Your task to perform on an android device: What's the weather going to be this weekend? Image 0: 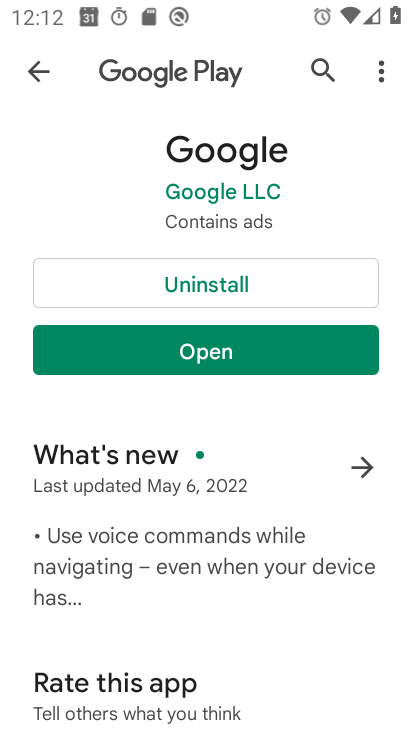
Step 0: press home button
Your task to perform on an android device: What's the weather going to be this weekend? Image 1: 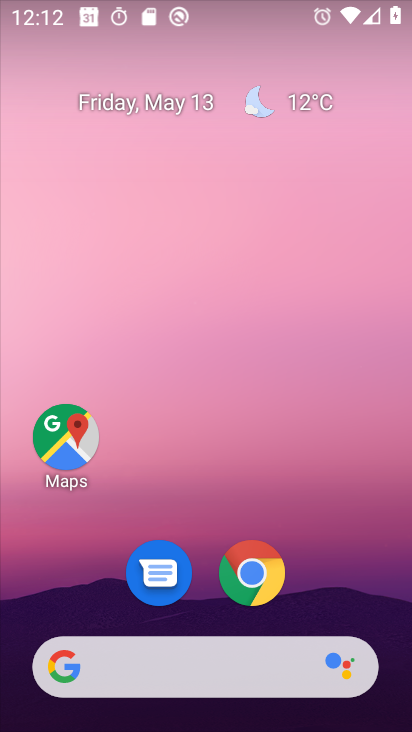
Step 1: drag from (392, 664) to (348, 211)
Your task to perform on an android device: What's the weather going to be this weekend? Image 2: 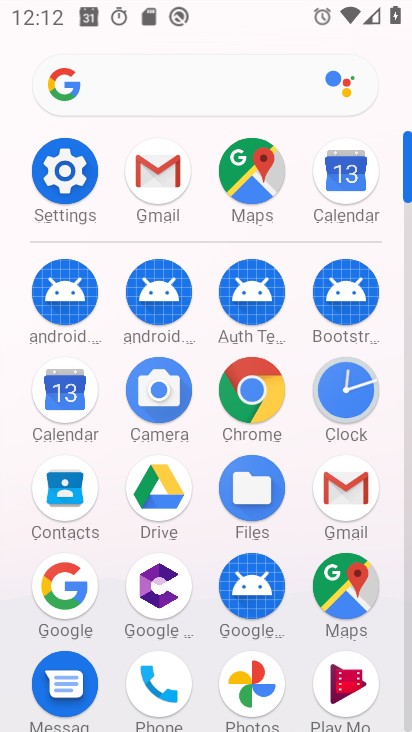
Step 2: press home button
Your task to perform on an android device: What's the weather going to be this weekend? Image 3: 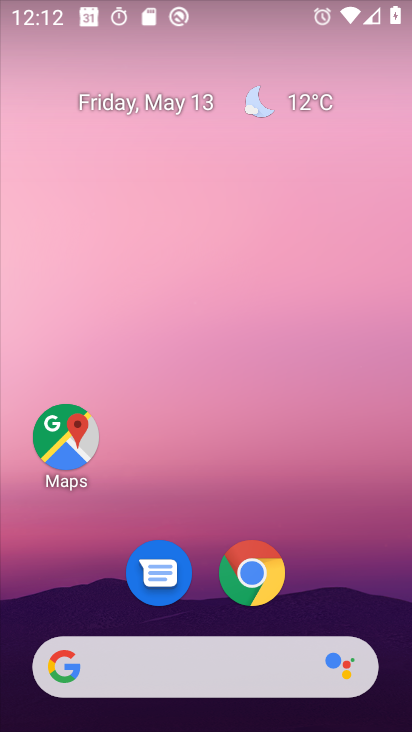
Step 3: click (294, 94)
Your task to perform on an android device: What's the weather going to be this weekend? Image 4: 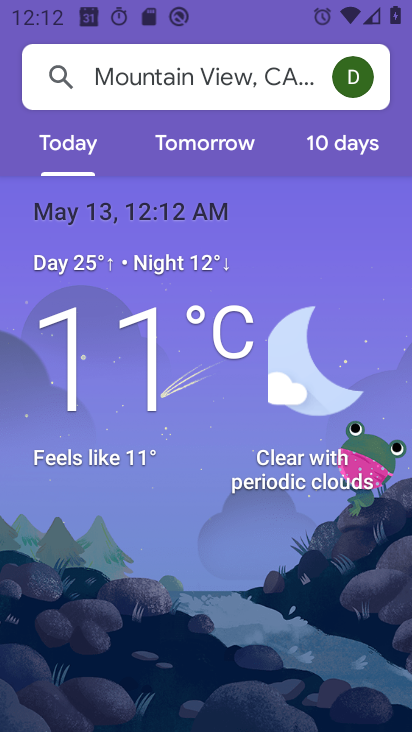
Step 4: click (328, 141)
Your task to perform on an android device: What's the weather going to be this weekend? Image 5: 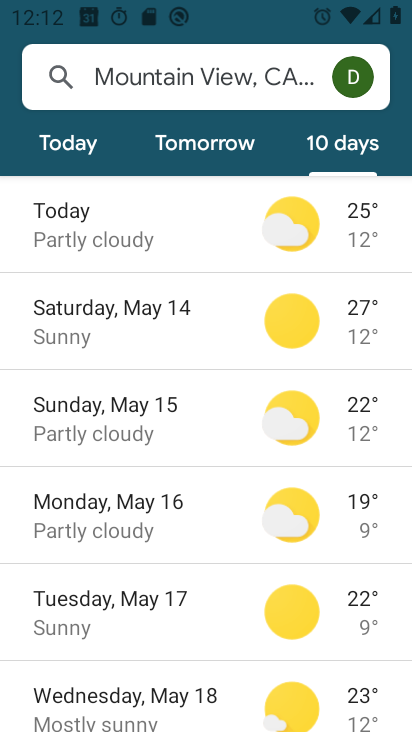
Step 5: task complete